Your task to perform on an android device: Go to network settings Image 0: 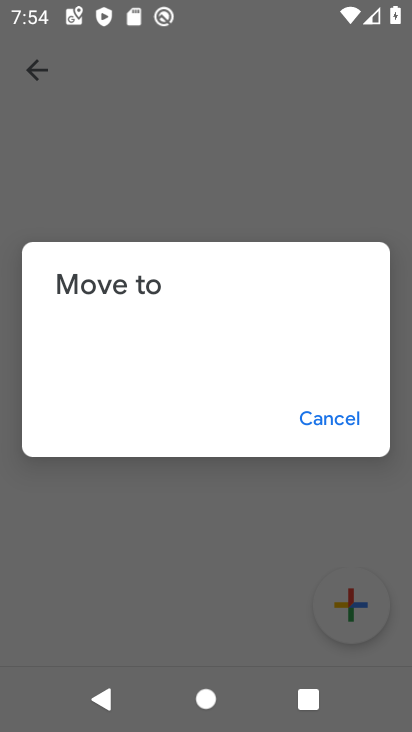
Step 0: drag from (333, 507) to (334, 211)
Your task to perform on an android device: Go to network settings Image 1: 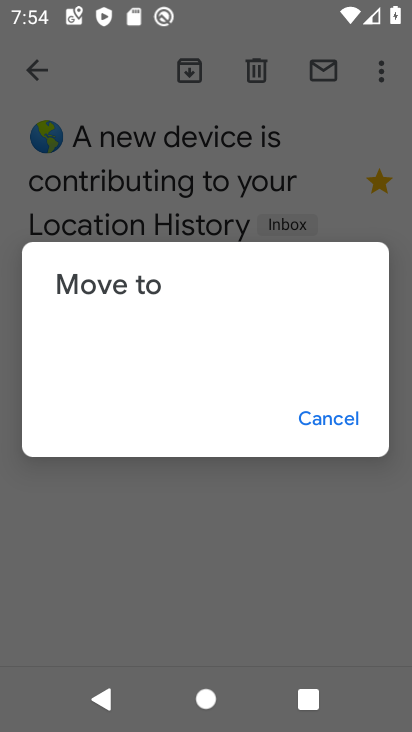
Step 1: press home button
Your task to perform on an android device: Go to network settings Image 2: 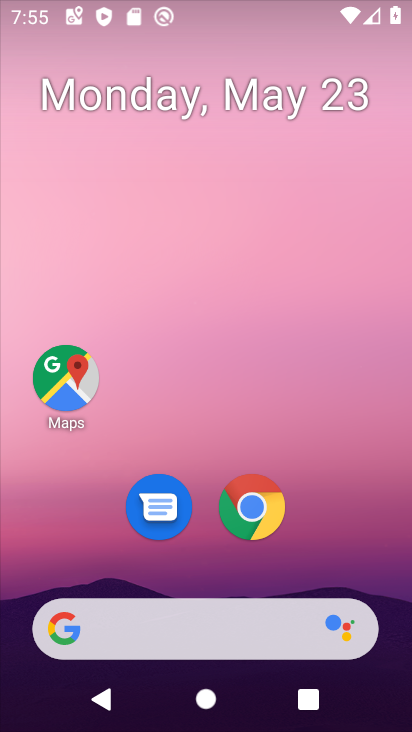
Step 2: drag from (355, 555) to (367, 131)
Your task to perform on an android device: Go to network settings Image 3: 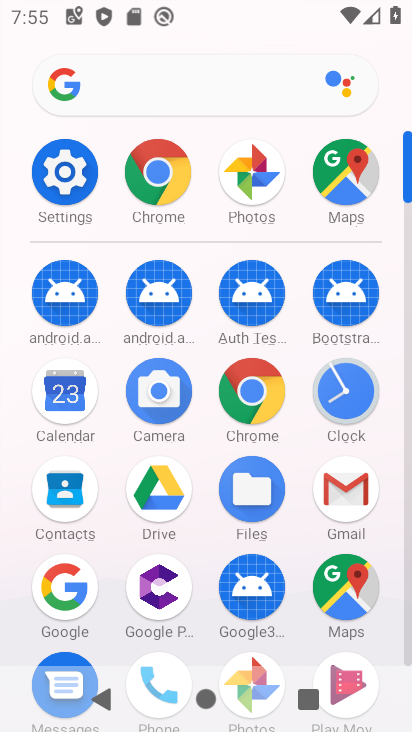
Step 3: click (58, 166)
Your task to perform on an android device: Go to network settings Image 4: 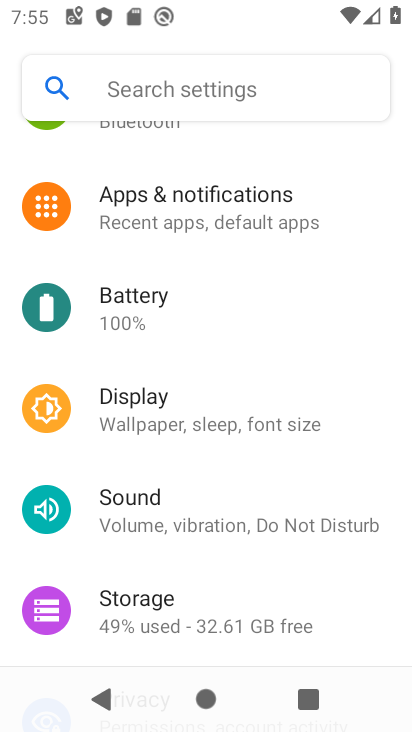
Step 4: drag from (157, 160) to (190, 514)
Your task to perform on an android device: Go to network settings Image 5: 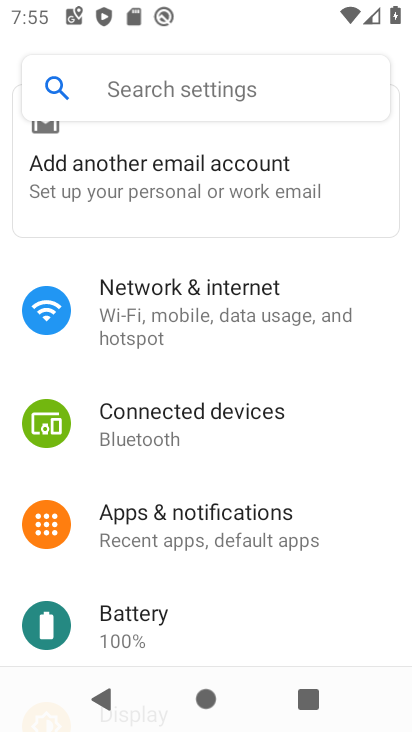
Step 5: click (198, 296)
Your task to perform on an android device: Go to network settings Image 6: 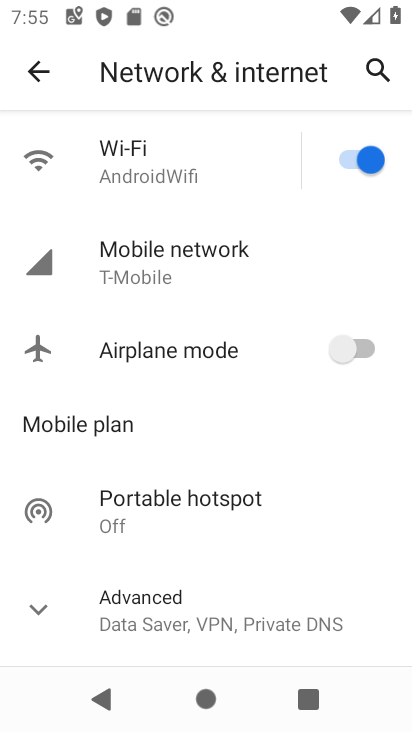
Step 6: task complete